Your task to perform on an android device: install app "Facebook Messenger" Image 0: 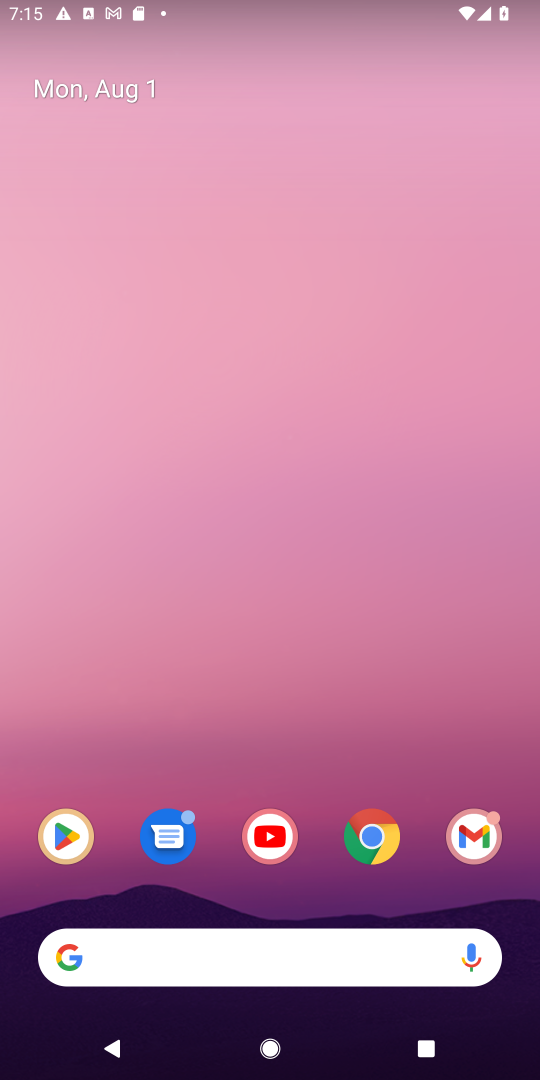
Step 0: click (56, 834)
Your task to perform on an android device: install app "Facebook Messenger" Image 1: 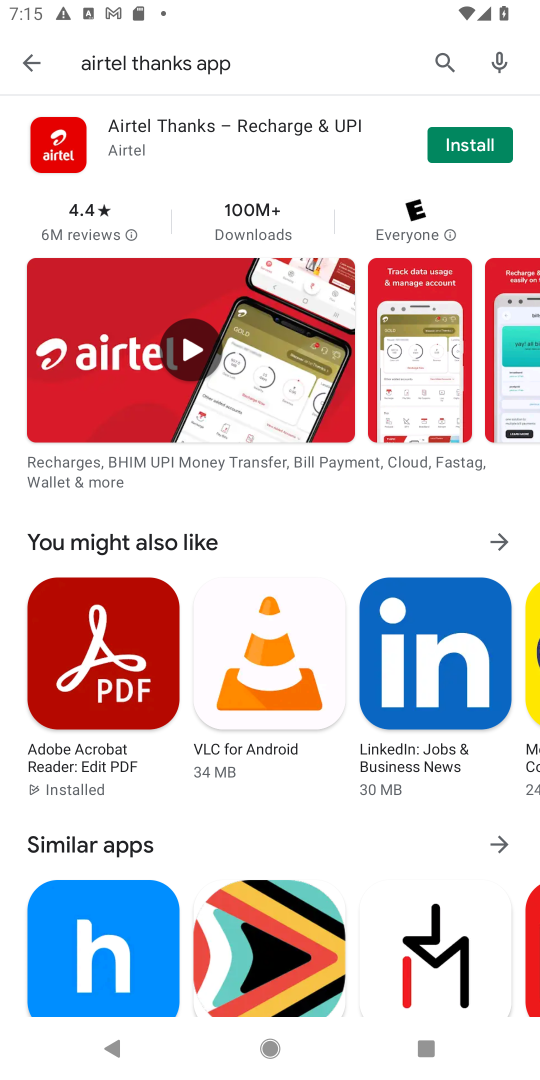
Step 1: click (445, 40)
Your task to perform on an android device: install app "Facebook Messenger" Image 2: 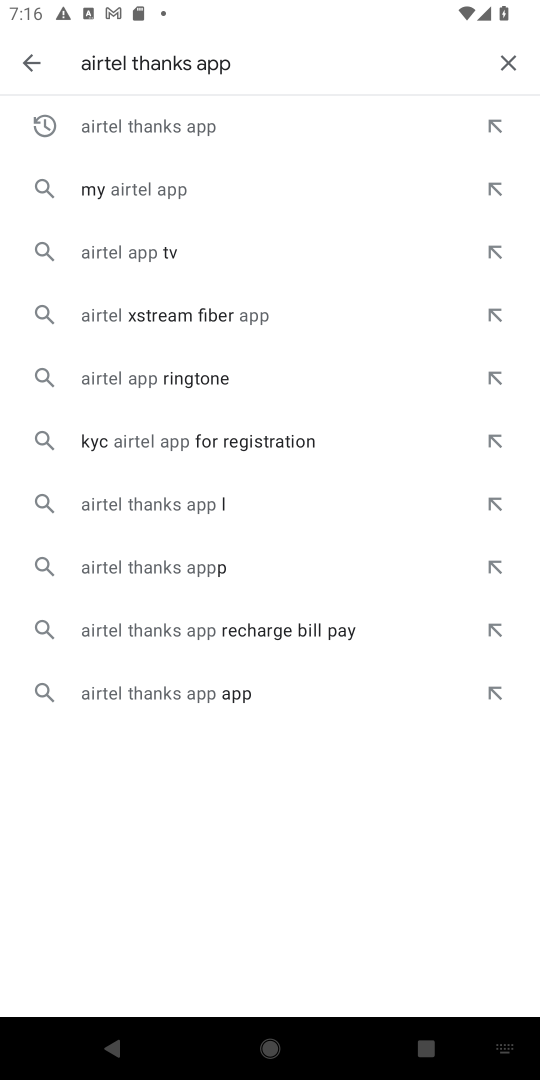
Step 2: click (505, 47)
Your task to perform on an android device: install app "Facebook Messenger" Image 3: 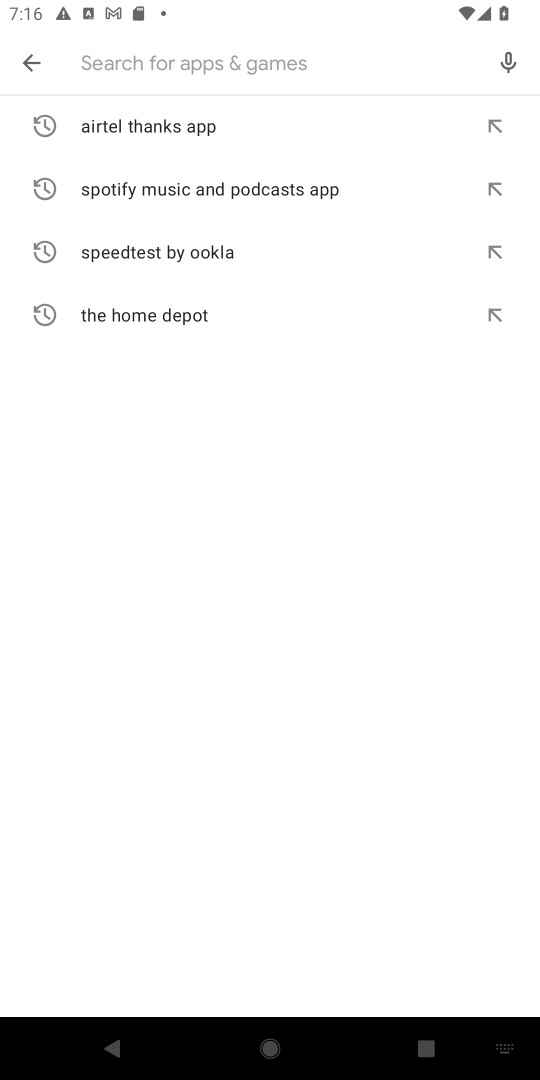
Step 3: type "Facebook Messenger"
Your task to perform on an android device: install app "Facebook Messenger" Image 4: 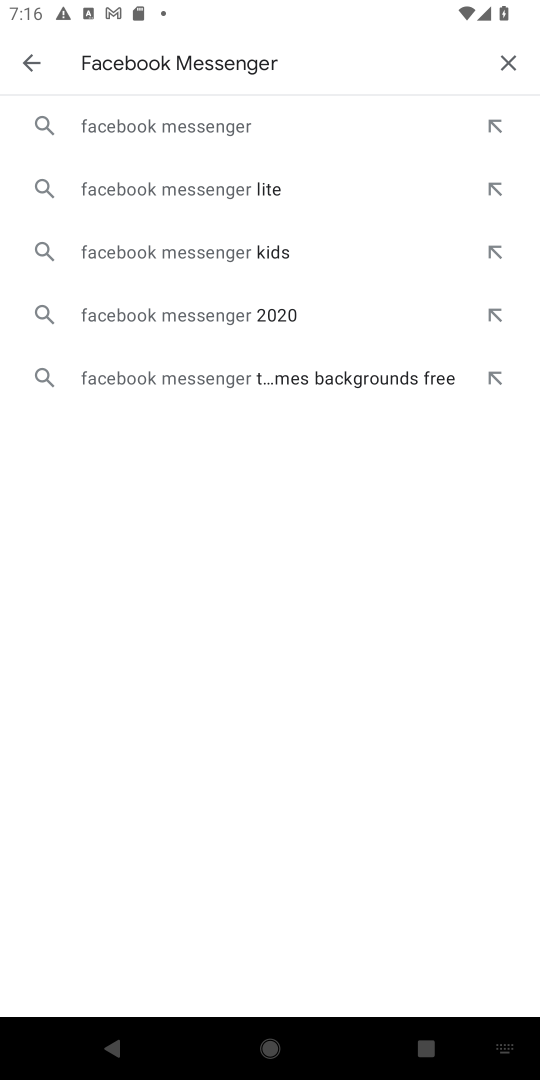
Step 4: click (165, 128)
Your task to perform on an android device: install app "Facebook Messenger" Image 5: 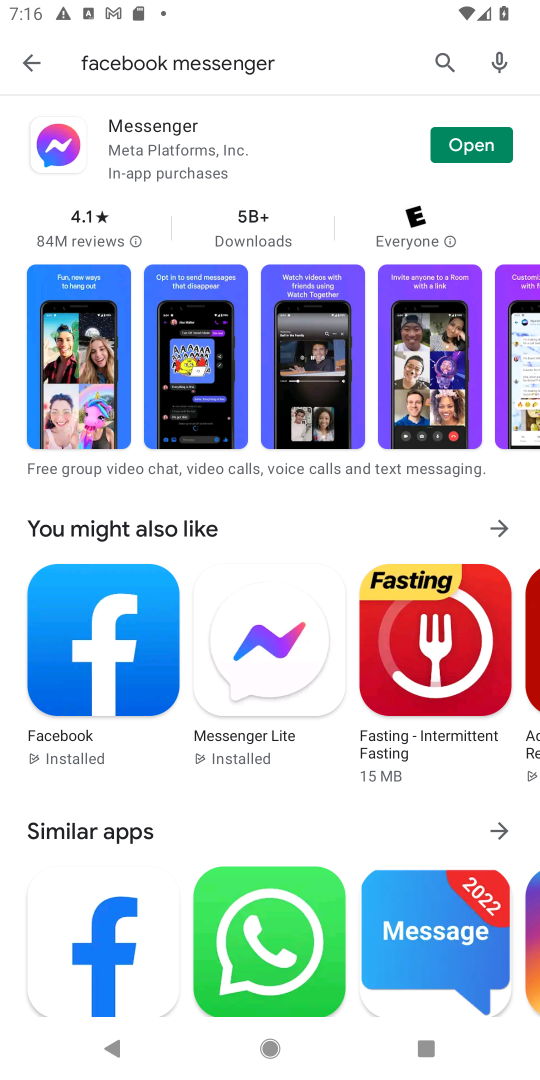
Step 5: task complete